Your task to perform on an android device: turn off location Image 0: 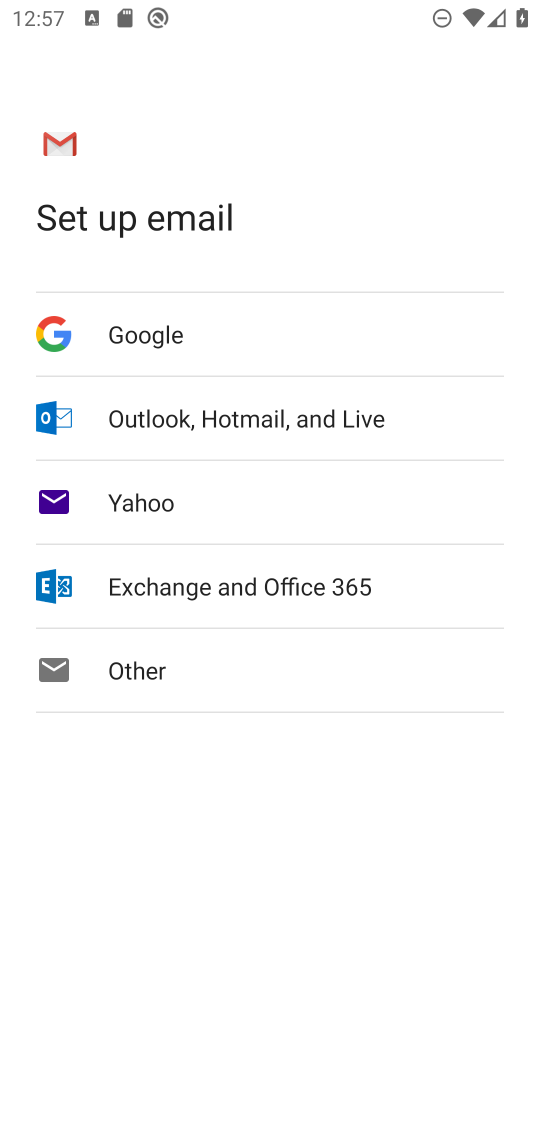
Step 0: press home button
Your task to perform on an android device: turn off location Image 1: 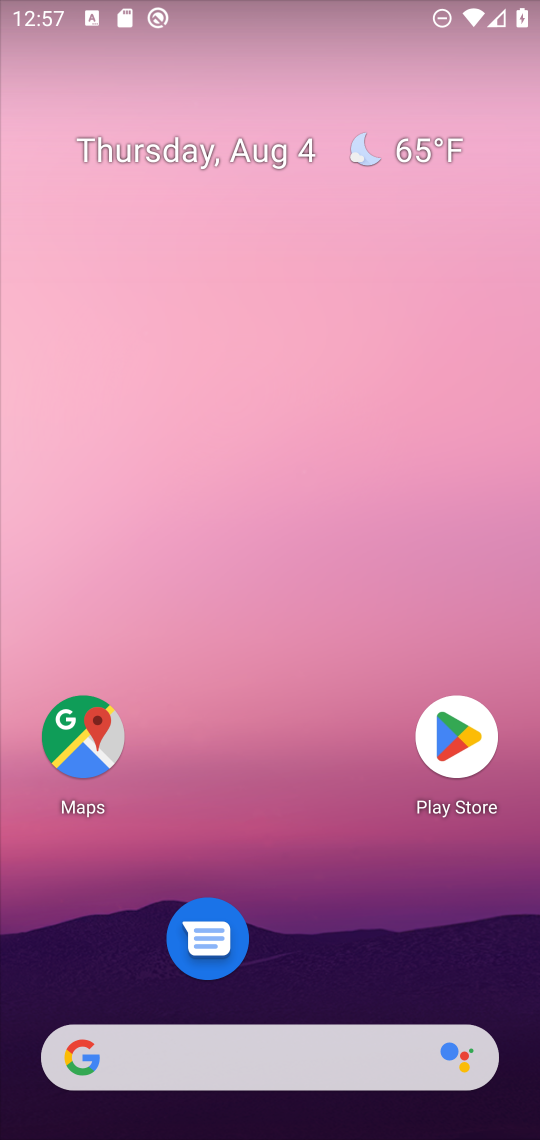
Step 1: drag from (268, 995) to (317, 79)
Your task to perform on an android device: turn off location Image 2: 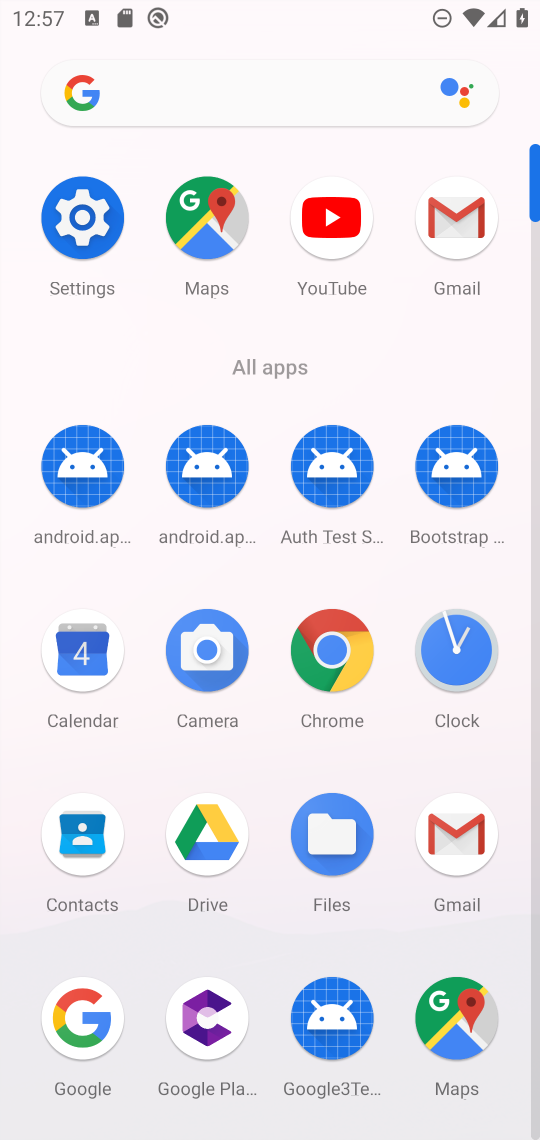
Step 2: click (85, 214)
Your task to perform on an android device: turn off location Image 3: 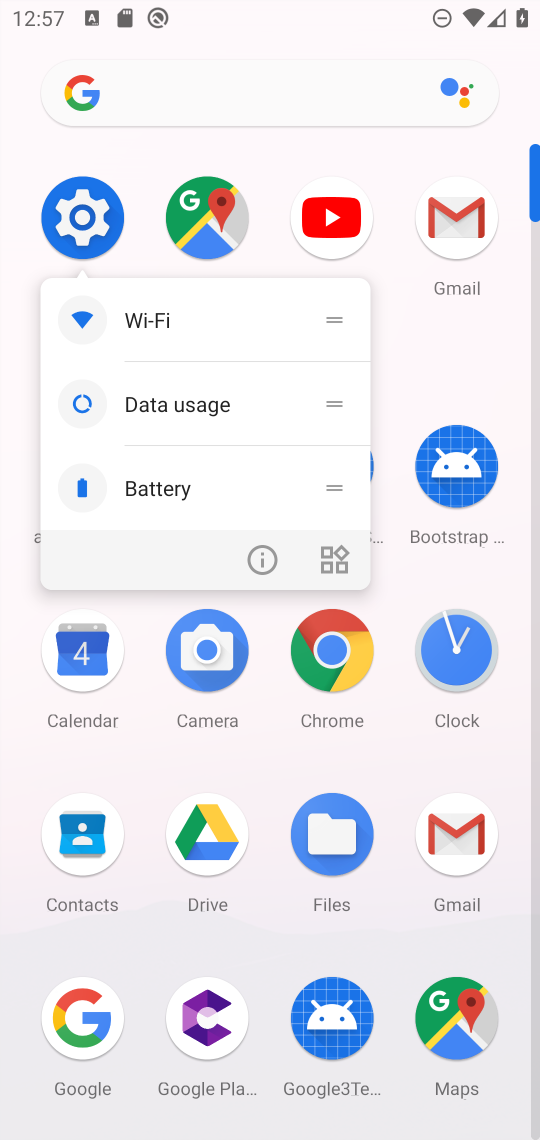
Step 3: click (80, 228)
Your task to perform on an android device: turn off location Image 4: 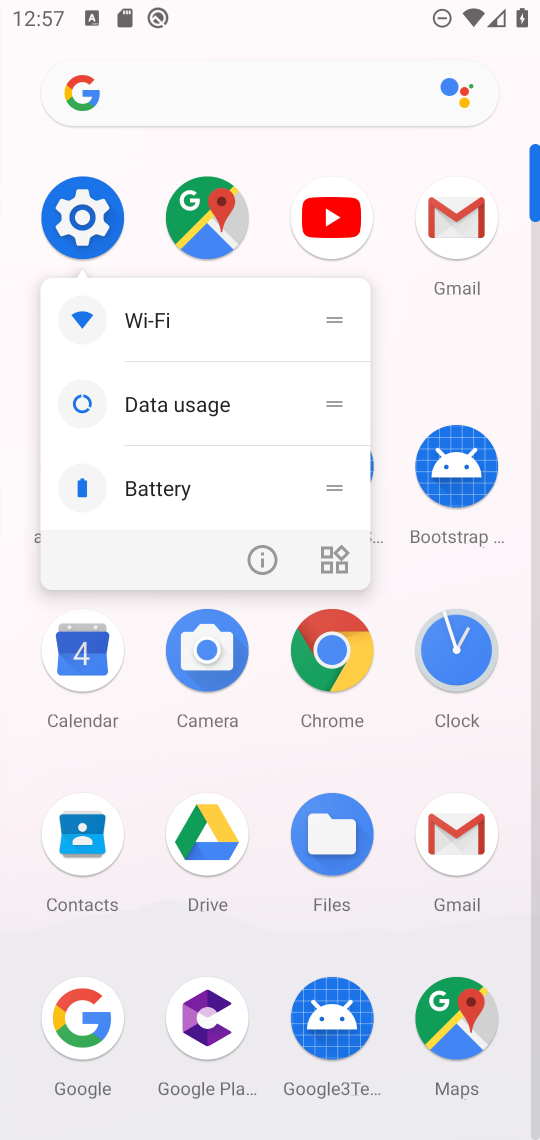
Step 4: click (80, 222)
Your task to perform on an android device: turn off location Image 5: 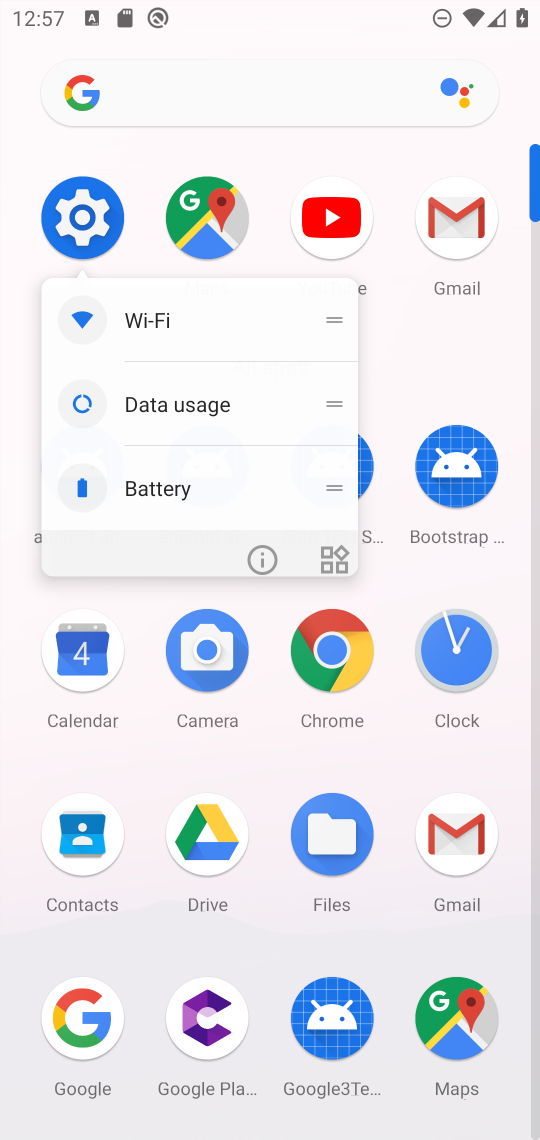
Step 5: click (80, 222)
Your task to perform on an android device: turn off location Image 6: 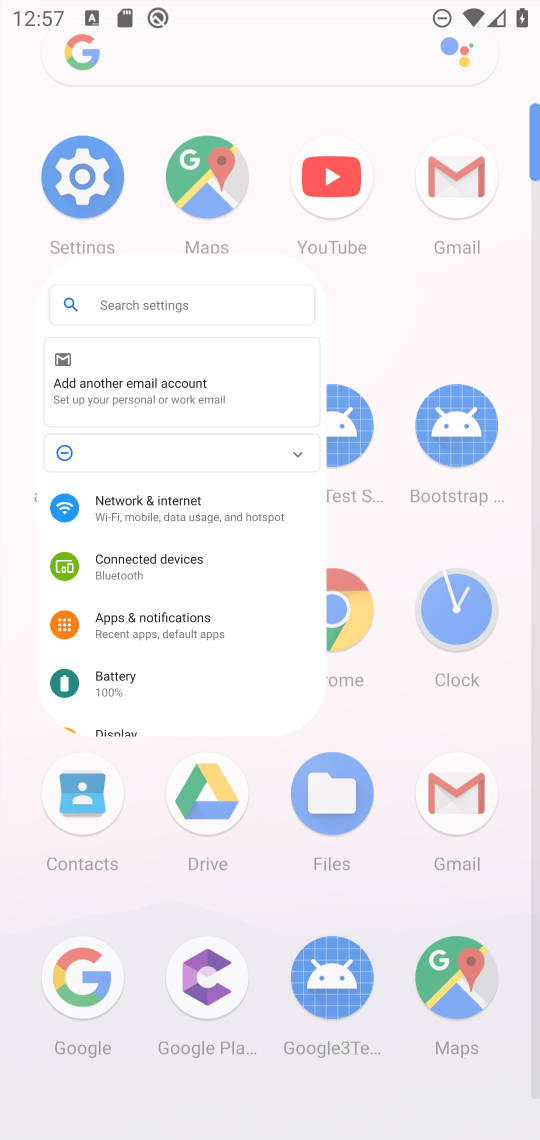
Step 6: click (80, 222)
Your task to perform on an android device: turn off location Image 7: 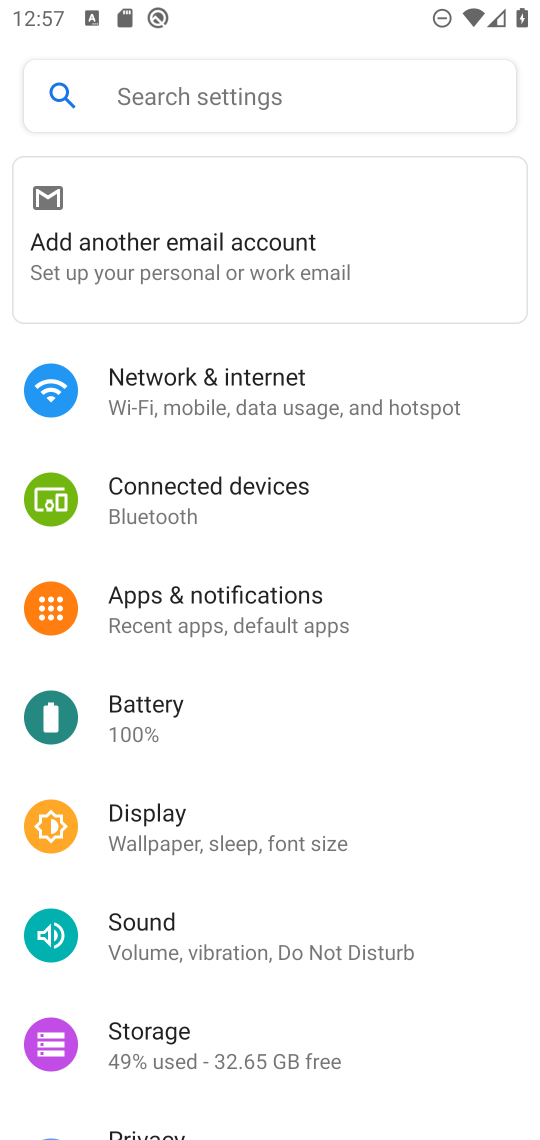
Step 7: drag from (292, 993) to (155, 142)
Your task to perform on an android device: turn off location Image 8: 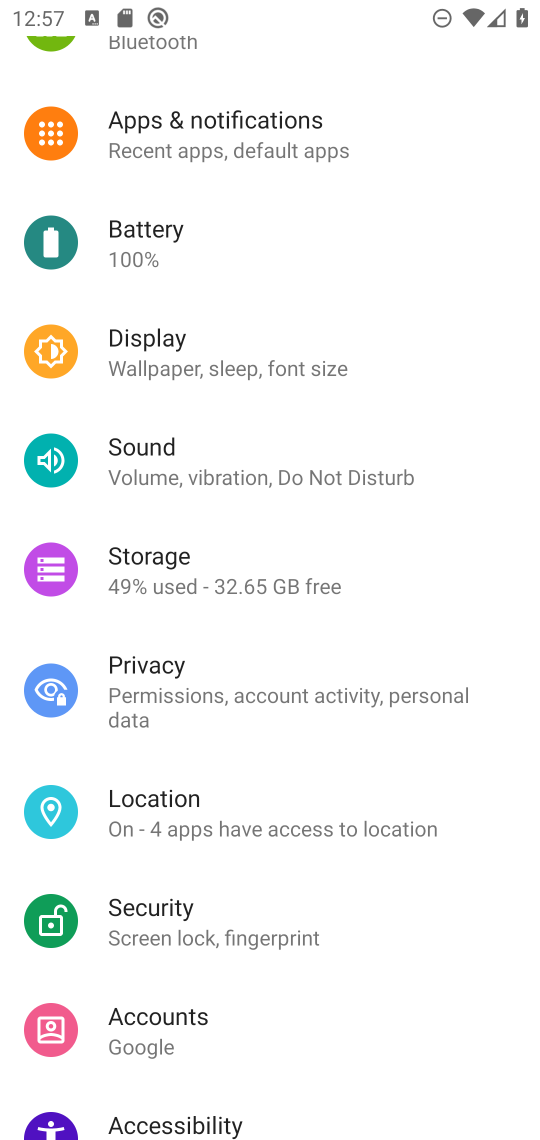
Step 8: click (345, 817)
Your task to perform on an android device: turn off location Image 9: 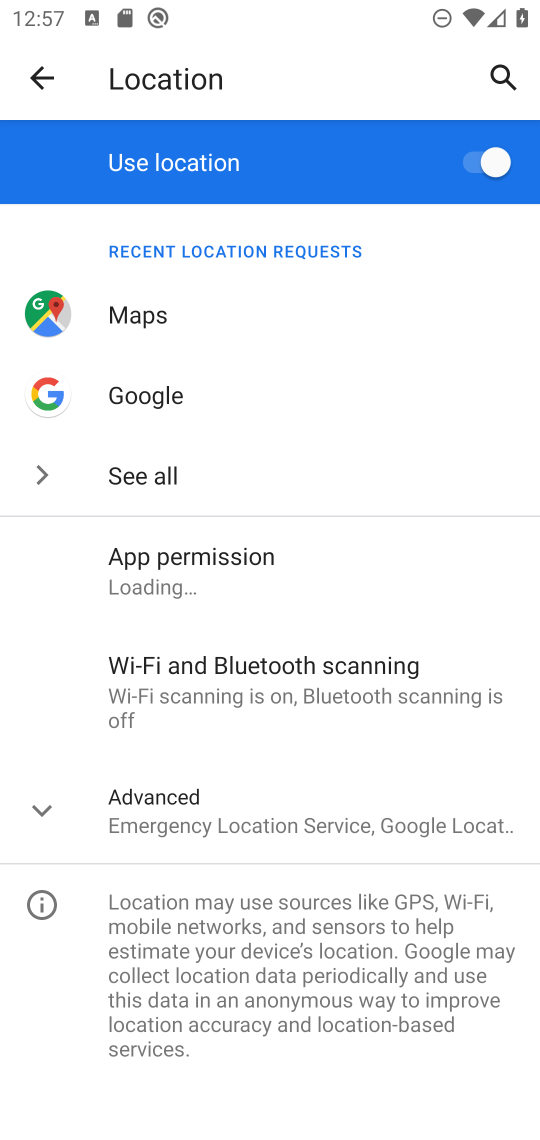
Step 9: click (498, 154)
Your task to perform on an android device: turn off location Image 10: 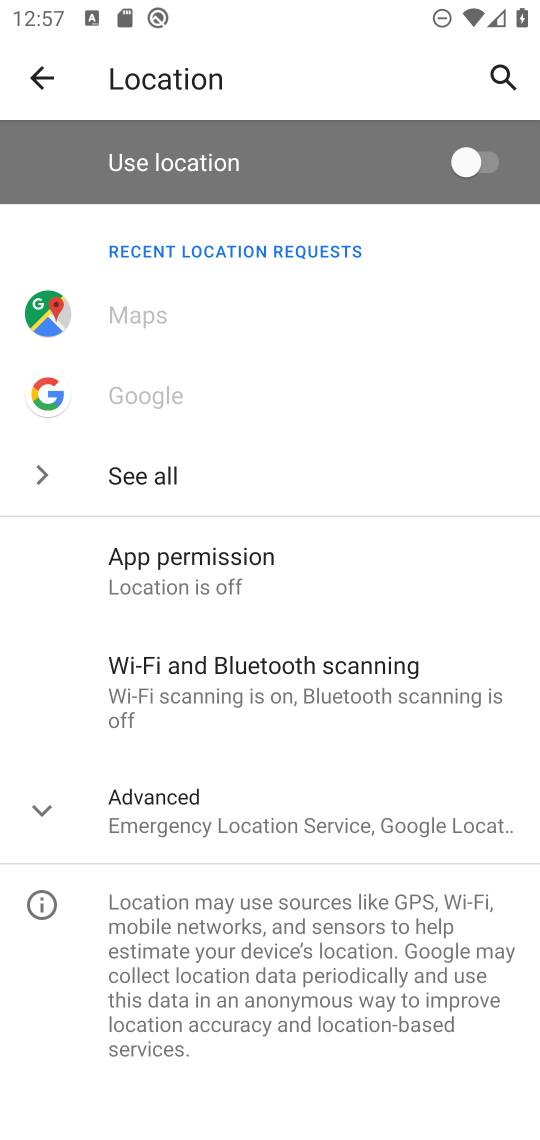
Step 10: task complete